Your task to perform on an android device: check battery use Image 0: 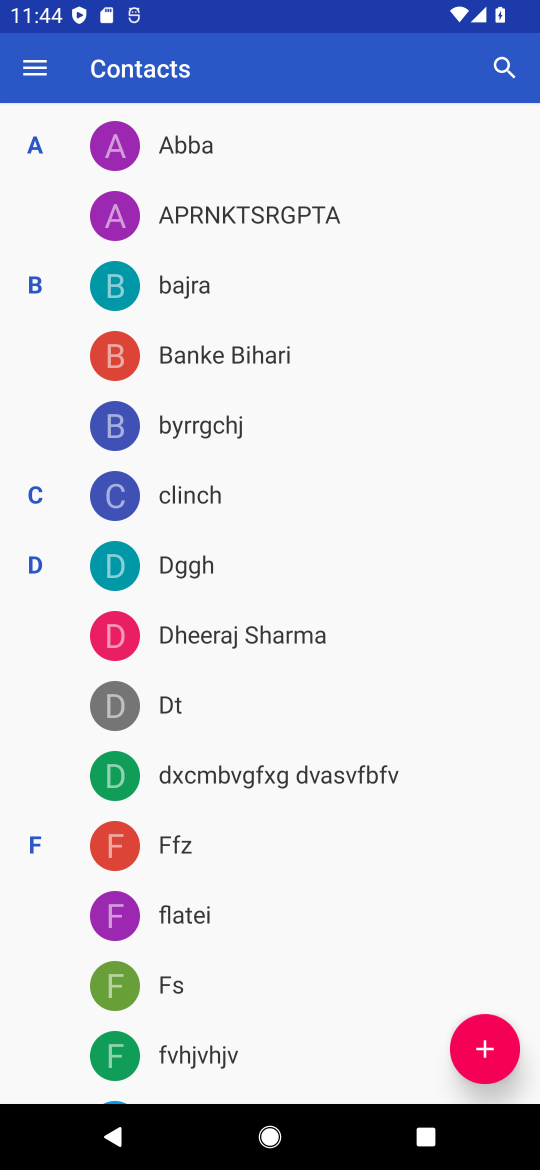
Step 0: press home button
Your task to perform on an android device: check battery use Image 1: 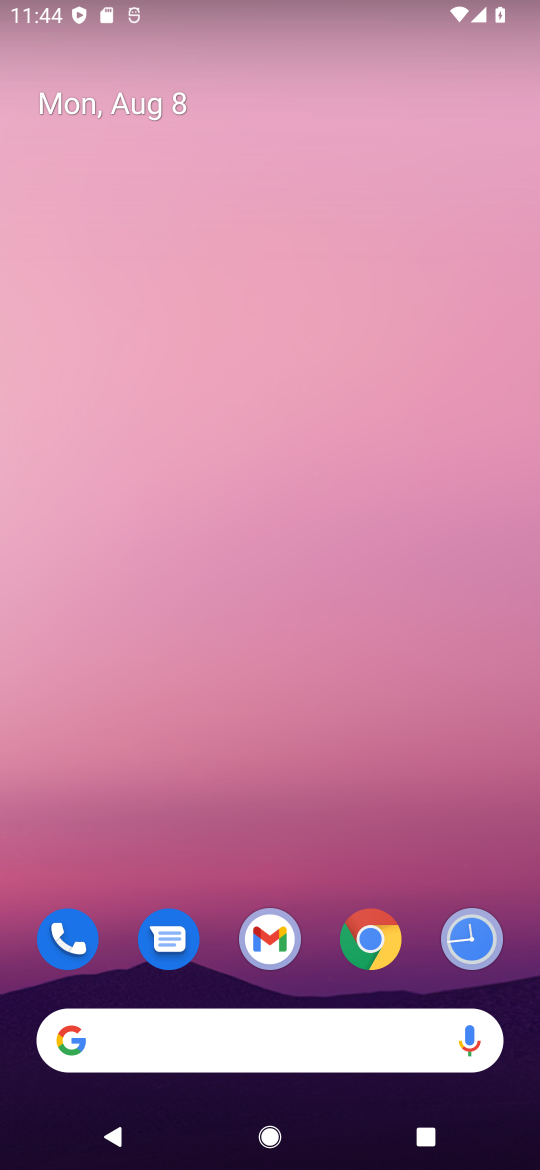
Step 1: drag from (256, 1046) to (349, 285)
Your task to perform on an android device: check battery use Image 2: 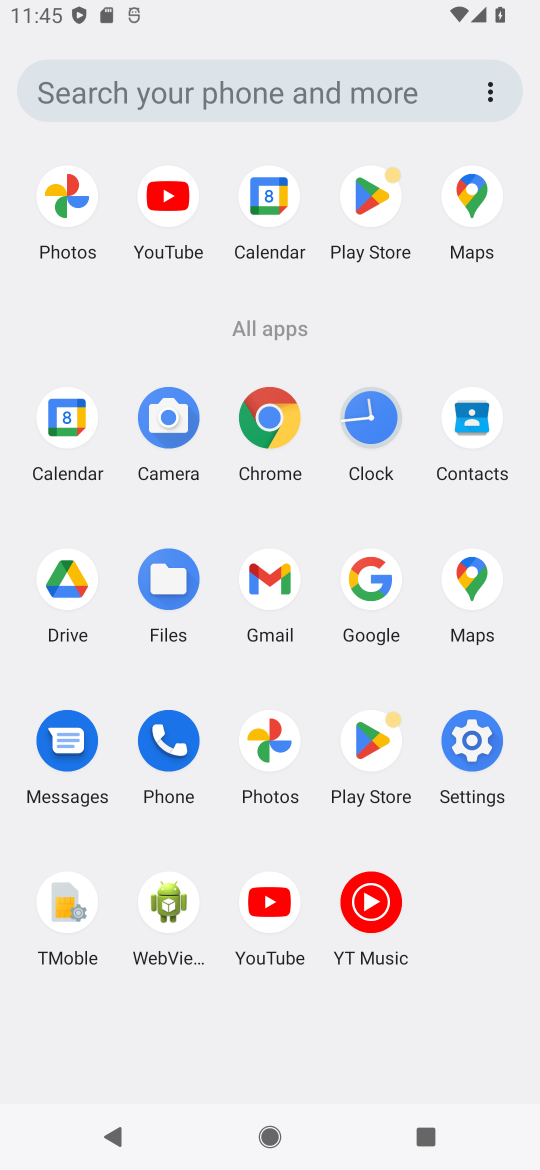
Step 2: click (472, 740)
Your task to perform on an android device: check battery use Image 3: 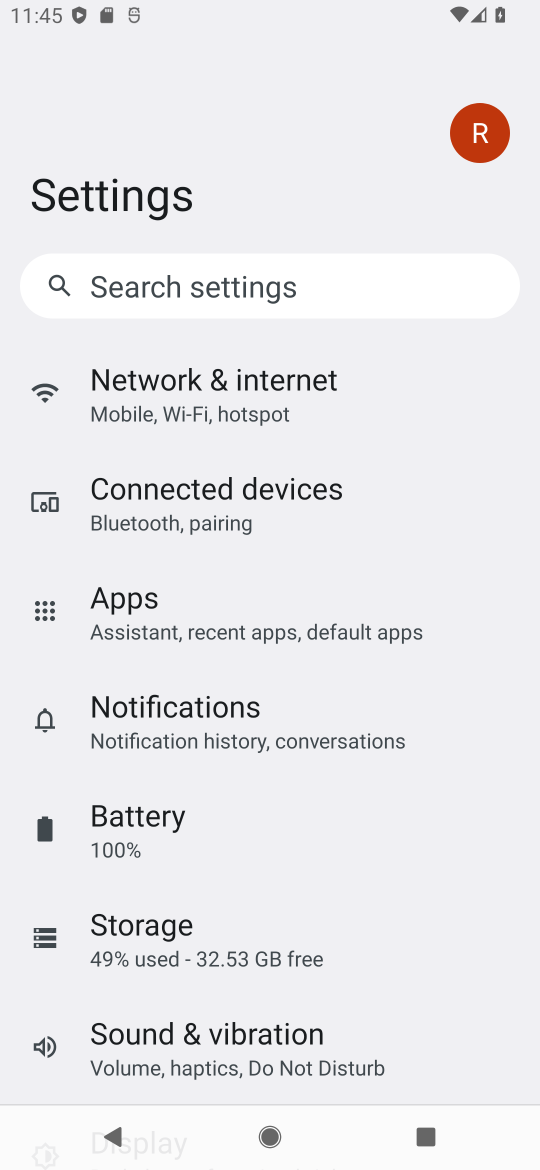
Step 3: drag from (202, 788) to (299, 653)
Your task to perform on an android device: check battery use Image 4: 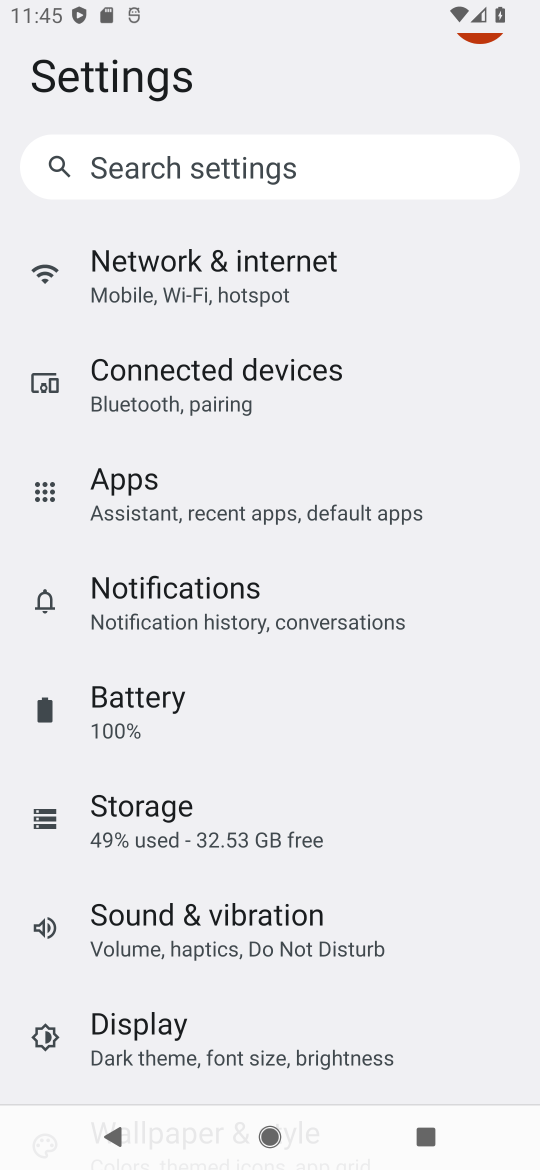
Step 4: click (180, 723)
Your task to perform on an android device: check battery use Image 5: 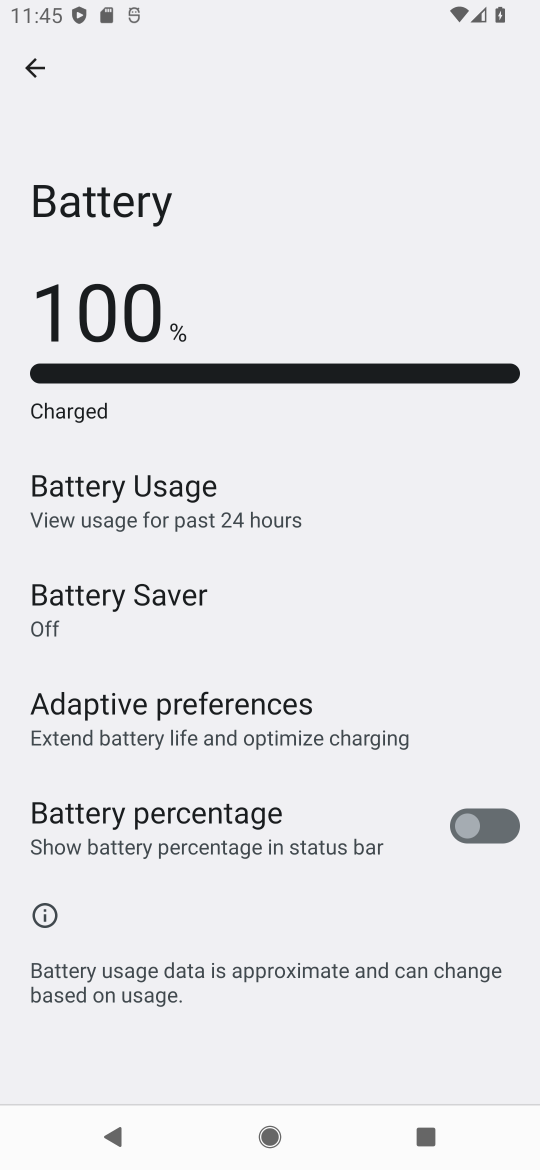
Step 5: click (248, 520)
Your task to perform on an android device: check battery use Image 6: 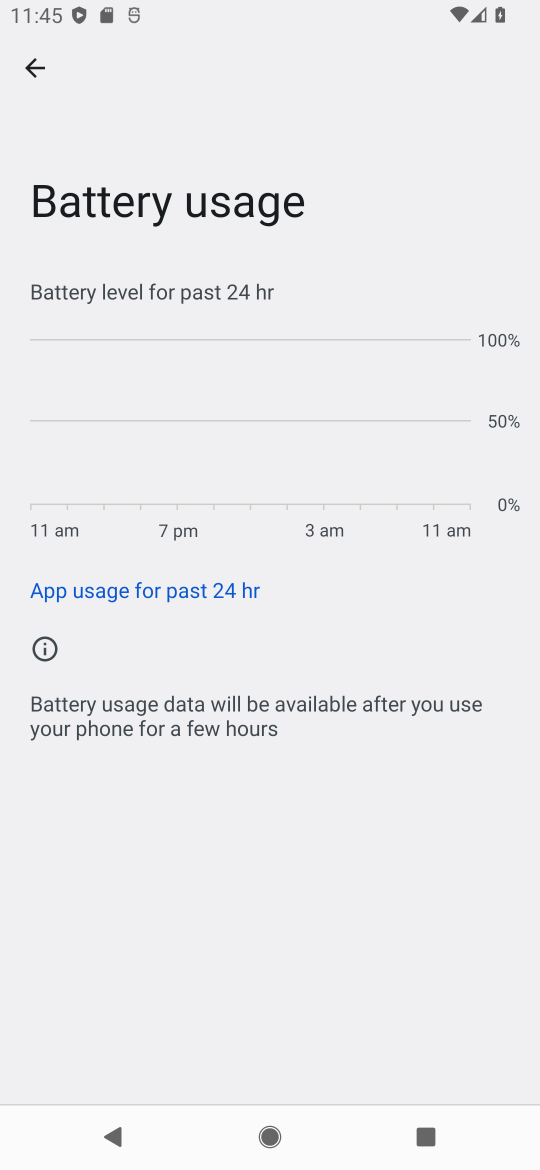
Step 6: task complete